Your task to perform on an android device: Open my contact list Image 0: 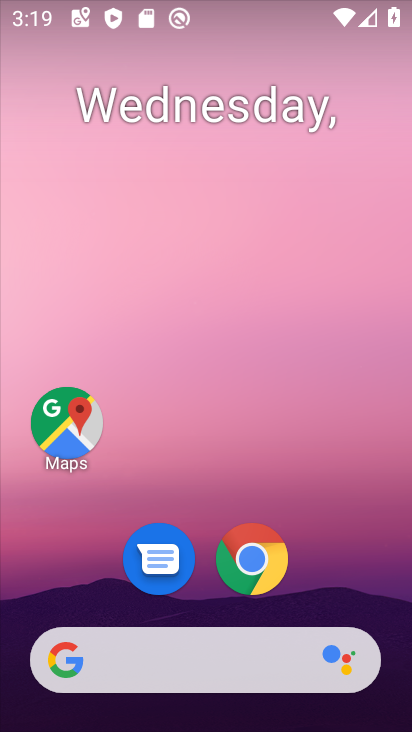
Step 0: drag from (71, 604) to (249, 157)
Your task to perform on an android device: Open my contact list Image 1: 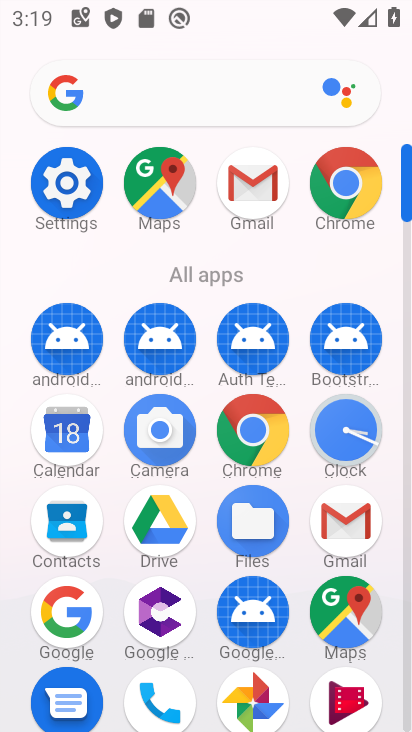
Step 1: click (70, 533)
Your task to perform on an android device: Open my contact list Image 2: 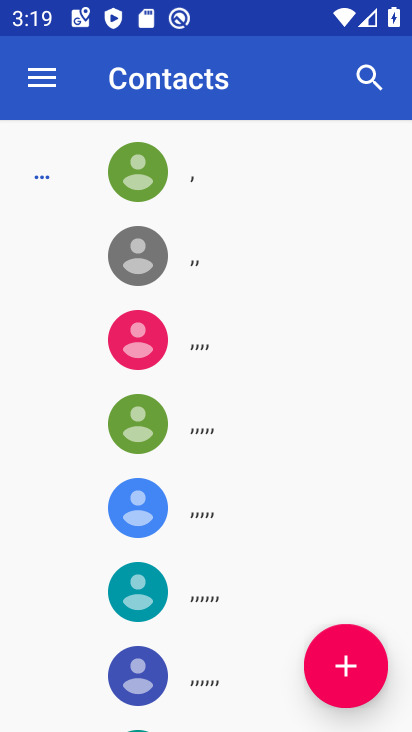
Step 2: task complete